Your task to perform on an android device: find photos in the google photos app Image 0: 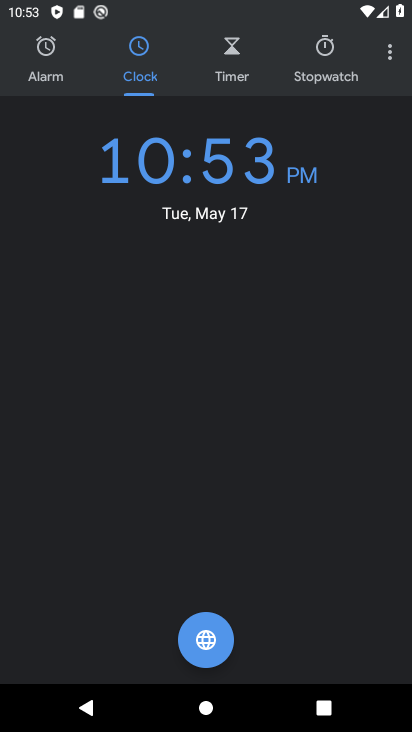
Step 0: press home button
Your task to perform on an android device: find photos in the google photos app Image 1: 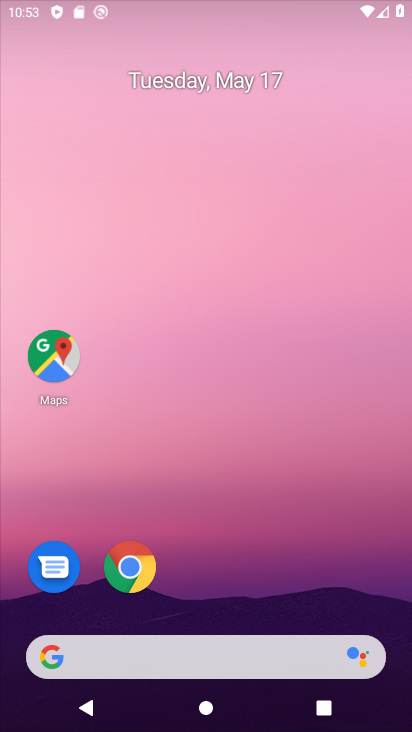
Step 1: drag from (320, 562) to (316, 269)
Your task to perform on an android device: find photos in the google photos app Image 2: 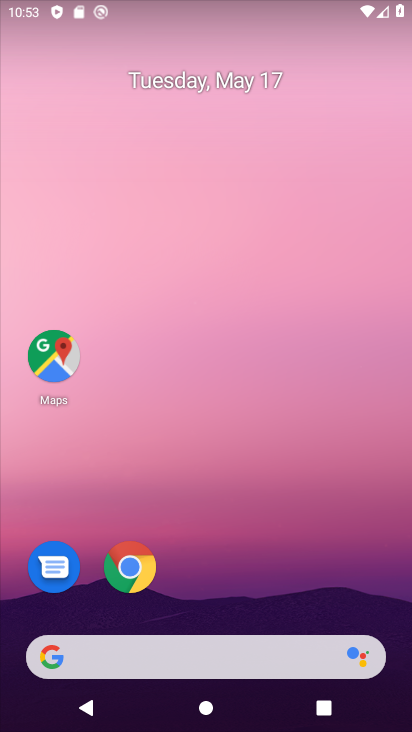
Step 2: drag from (309, 611) to (296, 212)
Your task to perform on an android device: find photos in the google photos app Image 3: 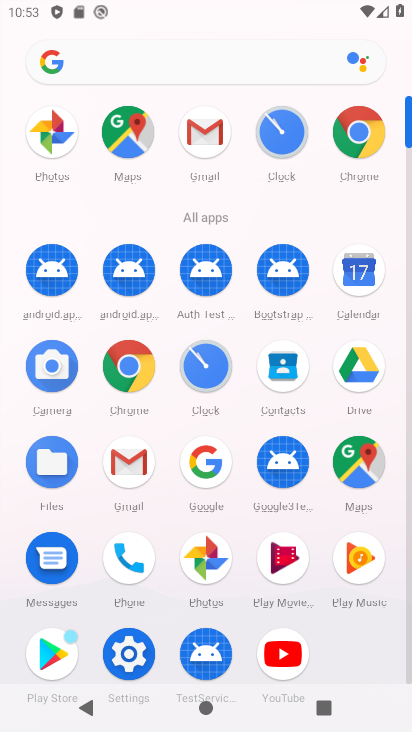
Step 3: click (196, 562)
Your task to perform on an android device: find photos in the google photos app Image 4: 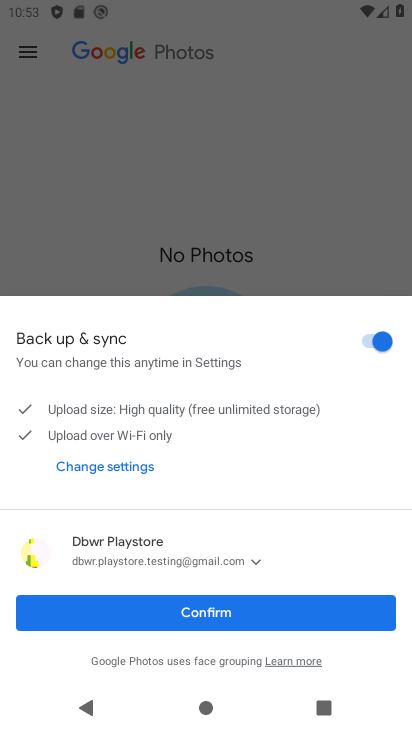
Step 4: click (216, 610)
Your task to perform on an android device: find photos in the google photos app Image 5: 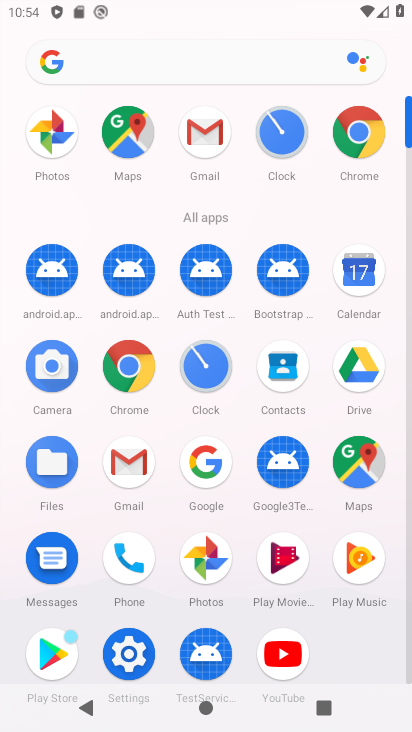
Step 5: click (192, 545)
Your task to perform on an android device: find photos in the google photos app Image 6: 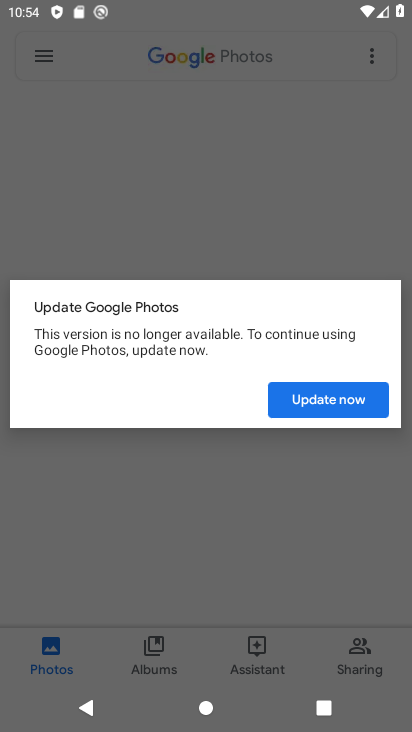
Step 6: click (296, 401)
Your task to perform on an android device: find photos in the google photos app Image 7: 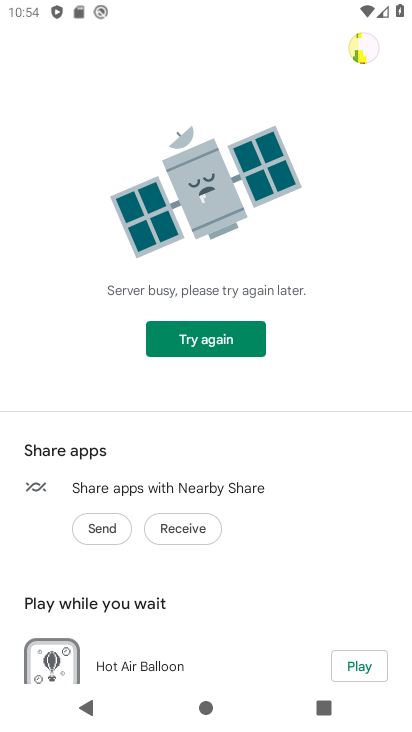
Step 7: task complete